Your task to perform on an android device: check google app version Image 0: 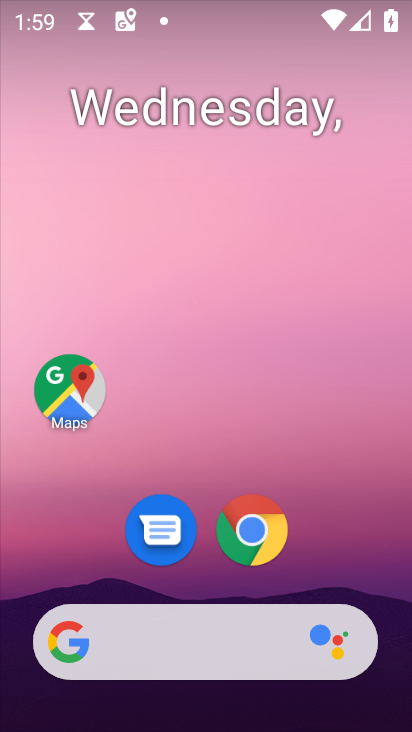
Step 0: drag from (315, 587) to (330, 270)
Your task to perform on an android device: check google app version Image 1: 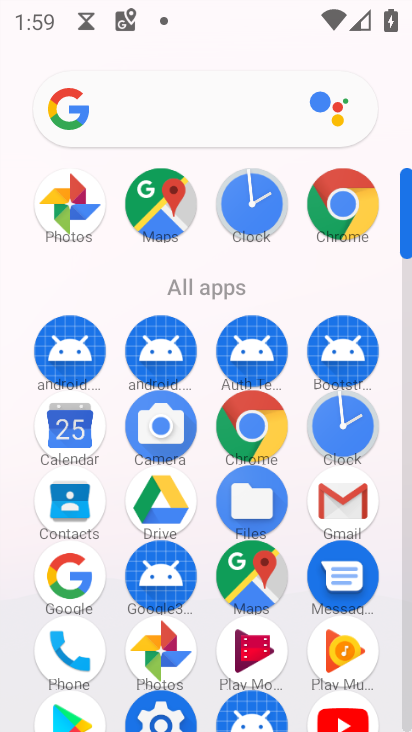
Step 1: click (67, 584)
Your task to perform on an android device: check google app version Image 2: 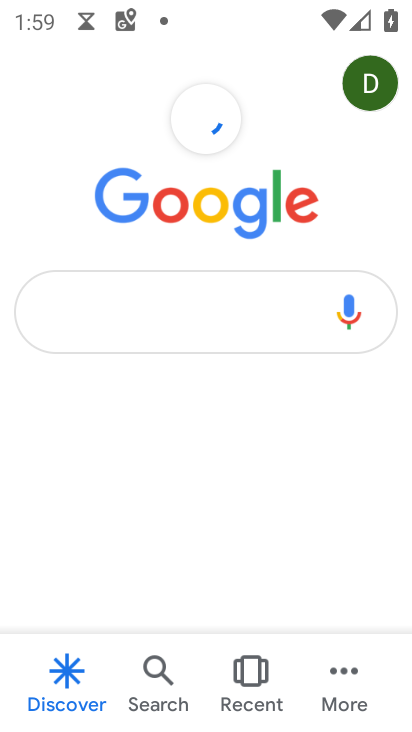
Step 2: click (341, 671)
Your task to perform on an android device: check google app version Image 3: 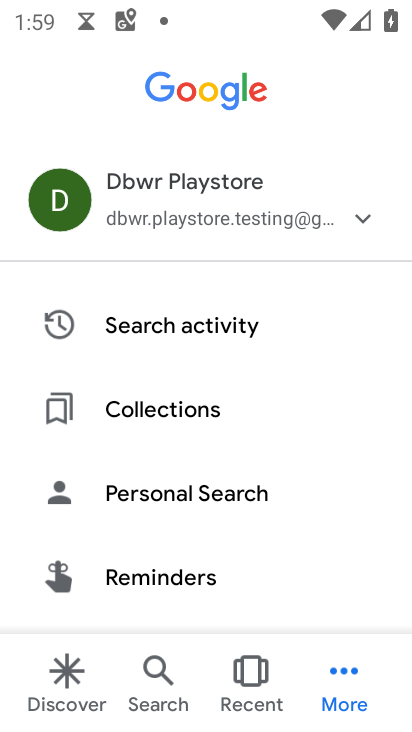
Step 3: drag from (186, 590) to (230, 291)
Your task to perform on an android device: check google app version Image 4: 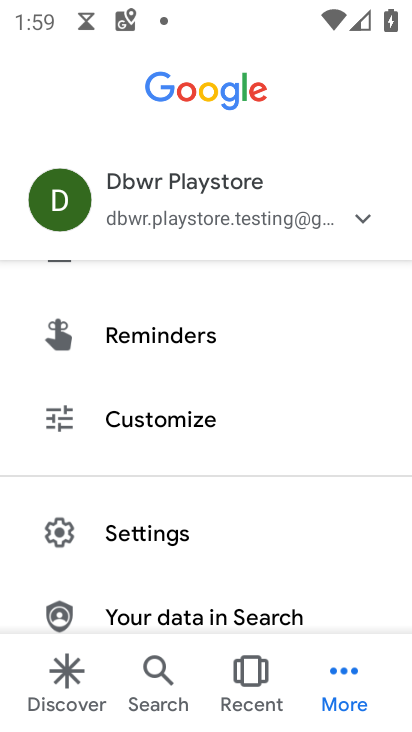
Step 4: click (154, 543)
Your task to perform on an android device: check google app version Image 5: 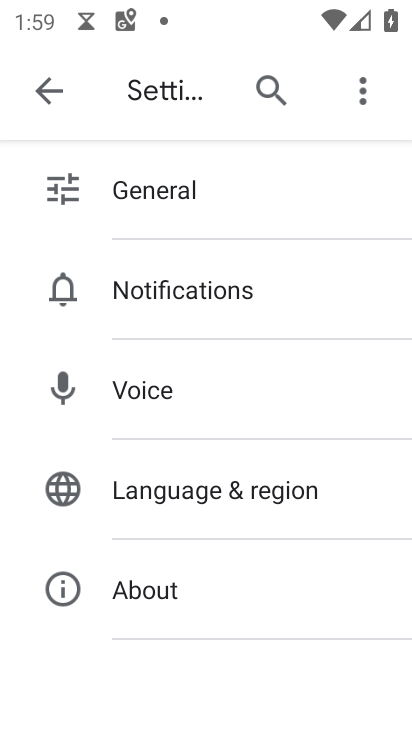
Step 5: click (170, 593)
Your task to perform on an android device: check google app version Image 6: 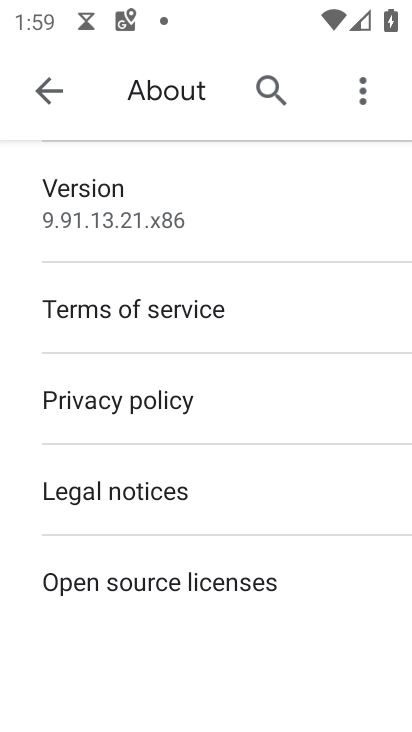
Step 6: task complete